Your task to perform on an android device: open a bookmark in the chrome app Image 0: 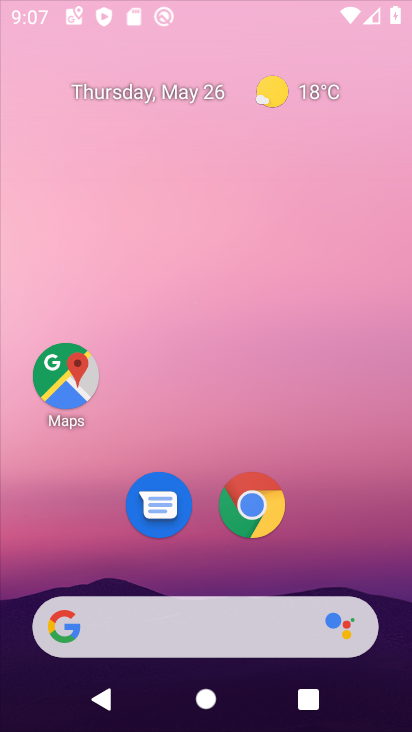
Step 0: press home button
Your task to perform on an android device: open a bookmark in the chrome app Image 1: 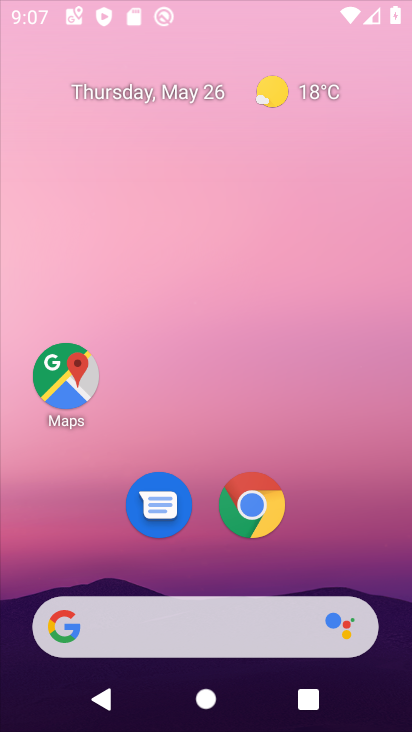
Step 1: click (253, 136)
Your task to perform on an android device: open a bookmark in the chrome app Image 2: 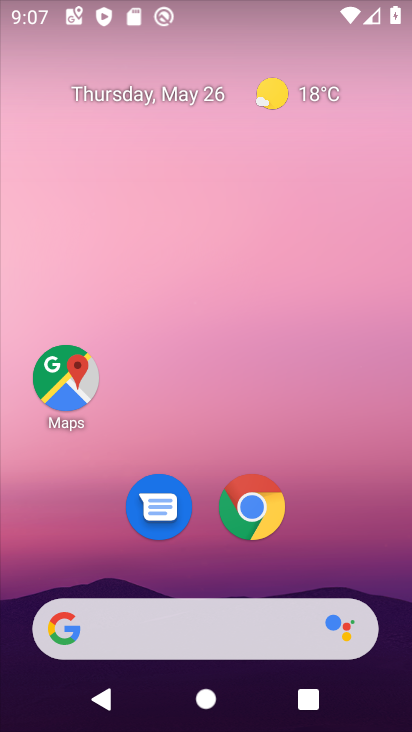
Step 2: drag from (281, 670) to (204, 105)
Your task to perform on an android device: open a bookmark in the chrome app Image 3: 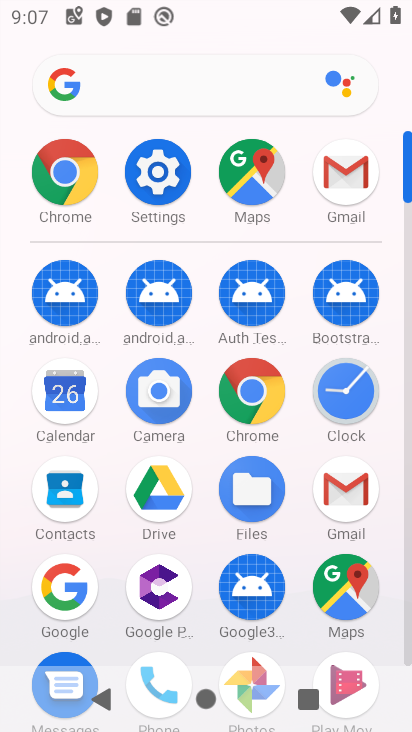
Step 3: click (256, 408)
Your task to perform on an android device: open a bookmark in the chrome app Image 4: 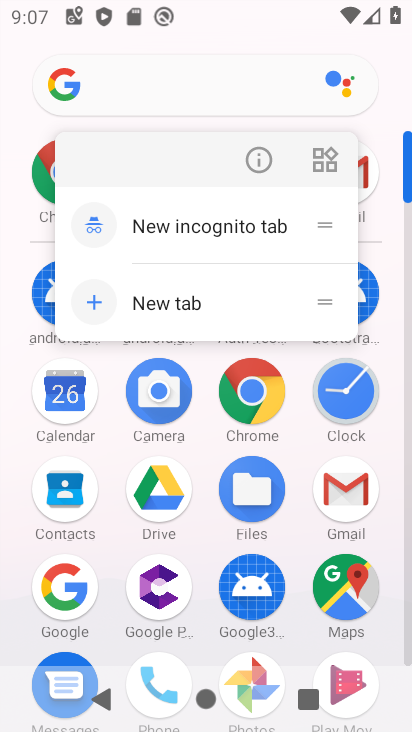
Step 4: click (246, 417)
Your task to perform on an android device: open a bookmark in the chrome app Image 5: 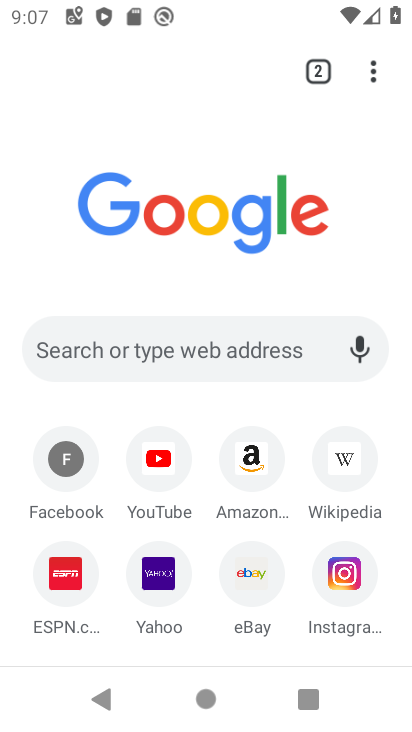
Step 5: click (370, 92)
Your task to perform on an android device: open a bookmark in the chrome app Image 6: 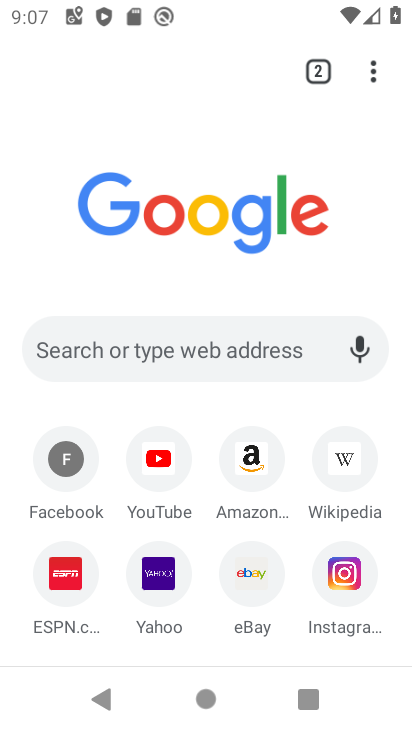
Step 6: click (374, 79)
Your task to perform on an android device: open a bookmark in the chrome app Image 7: 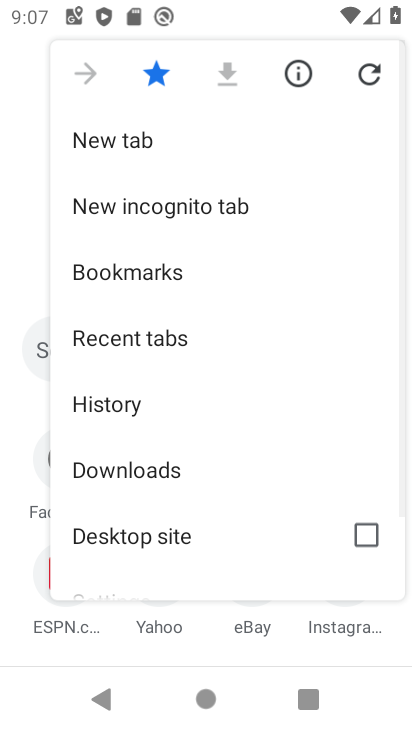
Step 7: click (157, 275)
Your task to perform on an android device: open a bookmark in the chrome app Image 8: 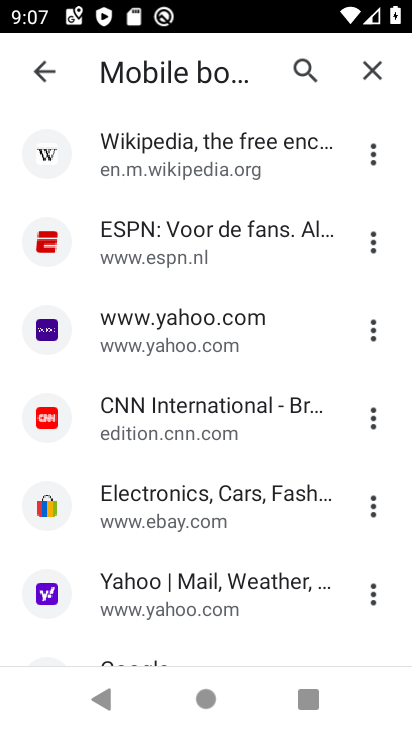
Step 8: click (179, 180)
Your task to perform on an android device: open a bookmark in the chrome app Image 9: 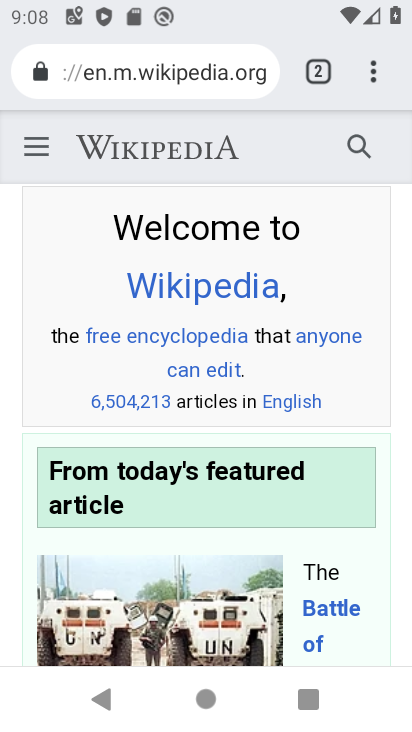
Step 9: task complete